Your task to perform on an android device: Open Google Image 0: 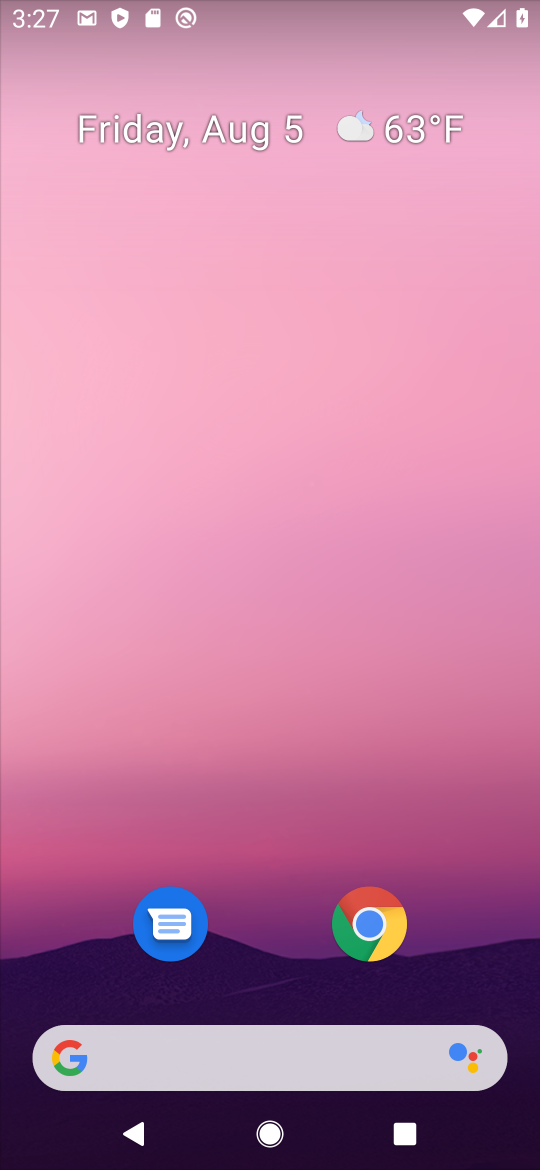
Step 0: drag from (298, 418) to (290, 133)
Your task to perform on an android device: Open Google Image 1: 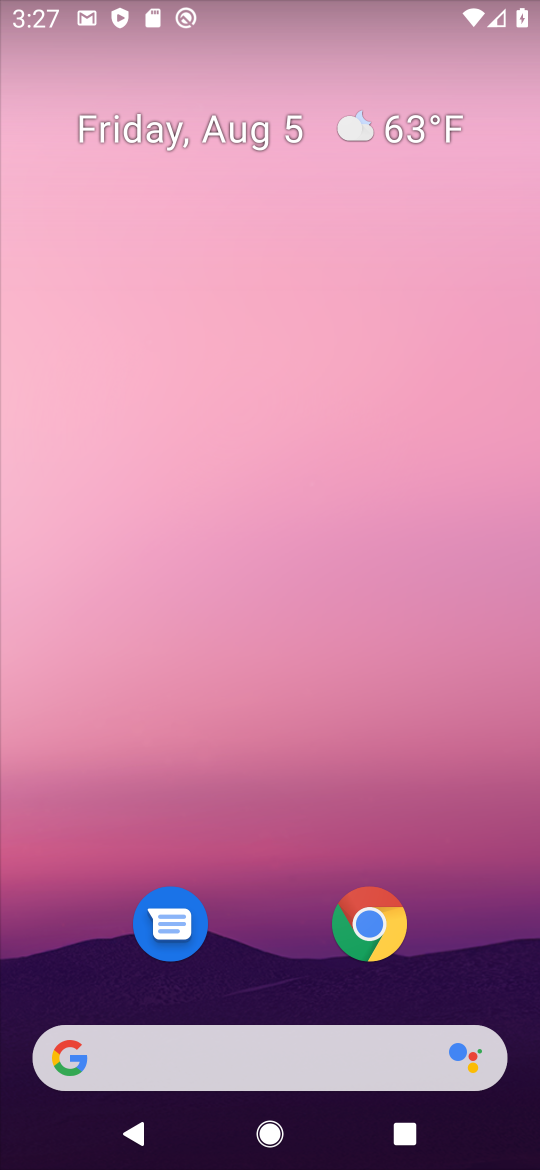
Step 1: drag from (263, 996) to (288, 150)
Your task to perform on an android device: Open Google Image 2: 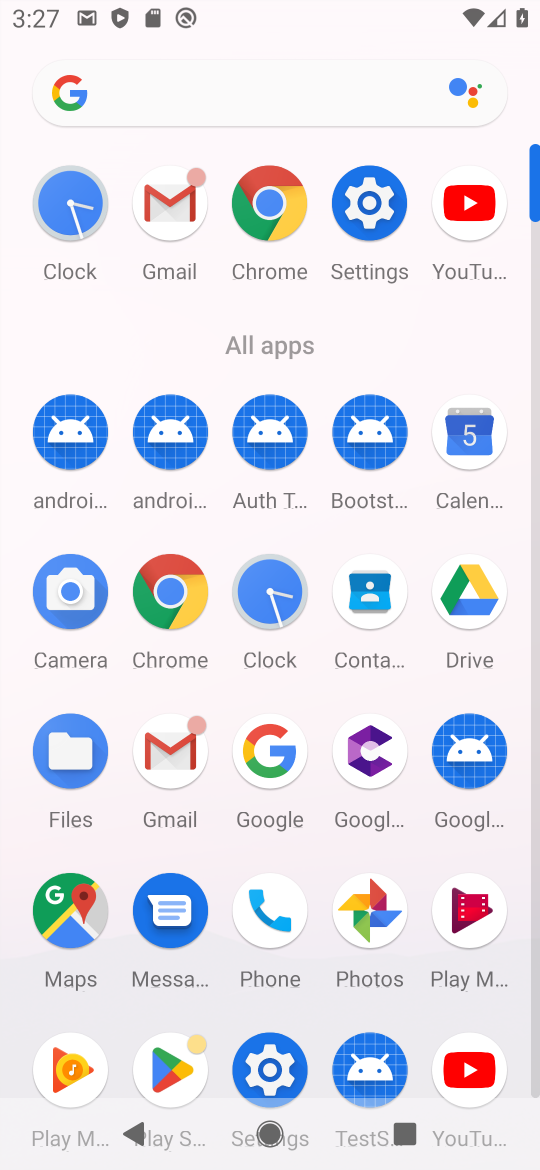
Step 2: click (276, 771)
Your task to perform on an android device: Open Google Image 3: 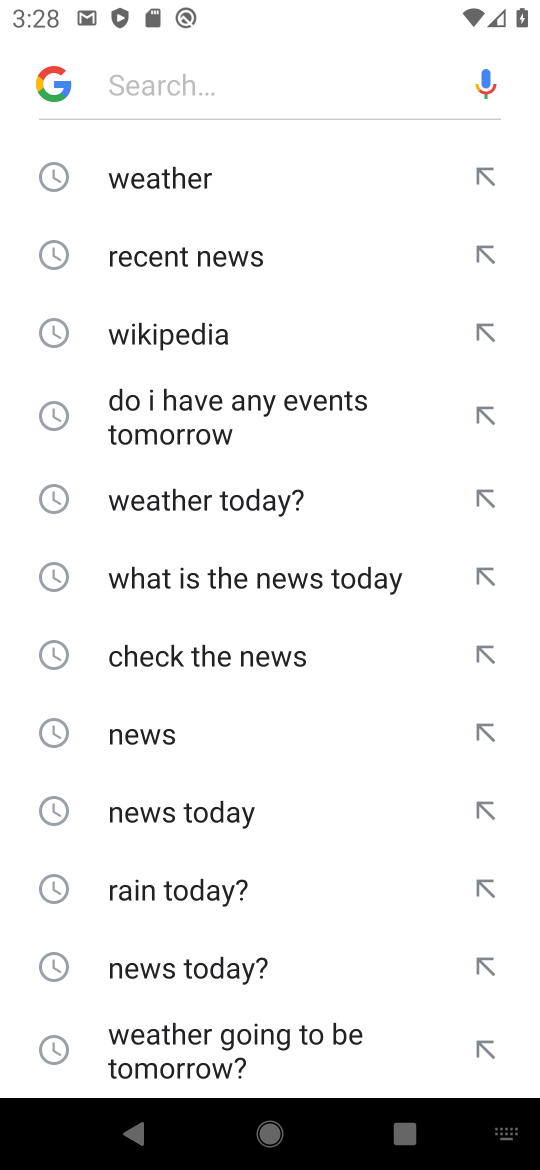
Step 3: task complete